Your task to perform on an android device: delete the emails in spam in the gmail app Image 0: 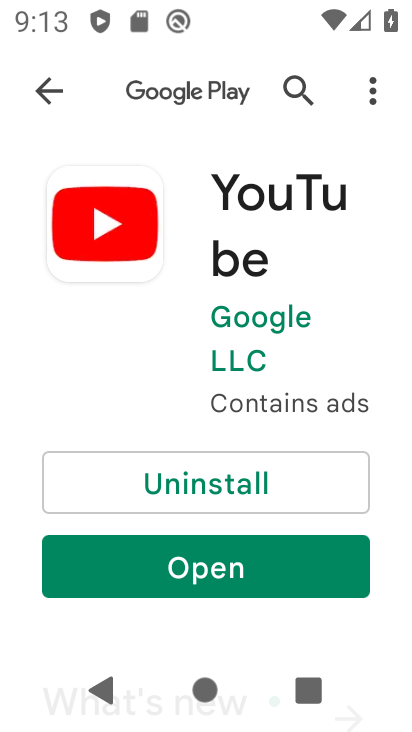
Step 0: press back button
Your task to perform on an android device: delete the emails in spam in the gmail app Image 1: 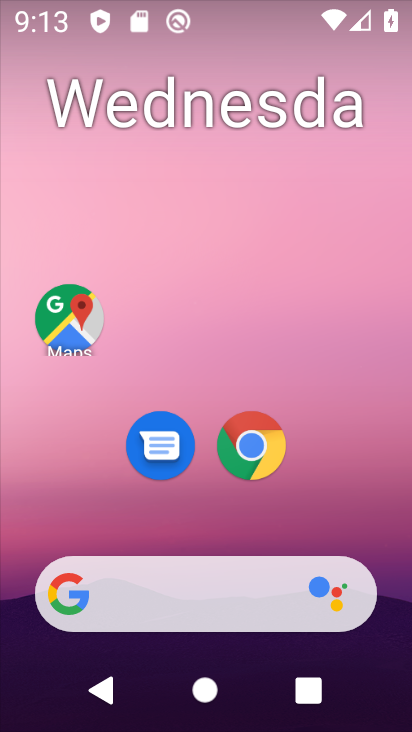
Step 1: drag from (159, 541) to (257, 4)
Your task to perform on an android device: delete the emails in spam in the gmail app Image 2: 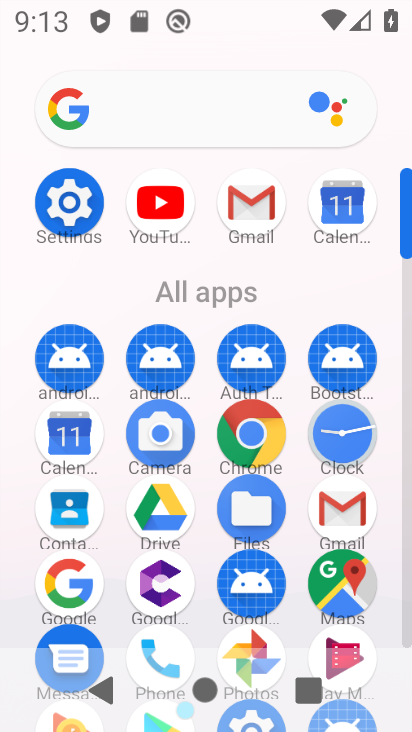
Step 2: click (251, 191)
Your task to perform on an android device: delete the emails in spam in the gmail app Image 3: 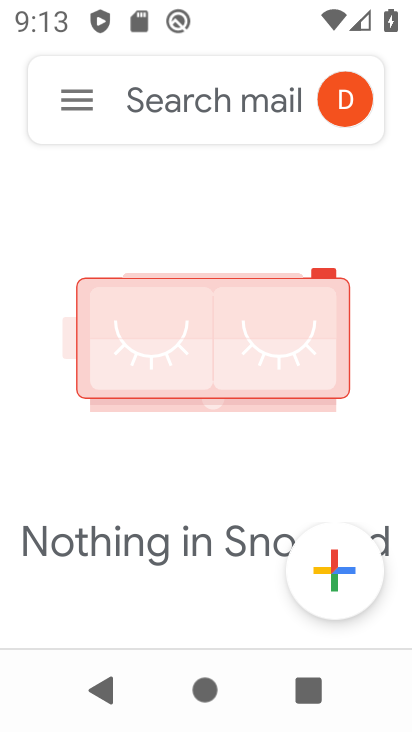
Step 3: click (78, 88)
Your task to perform on an android device: delete the emails in spam in the gmail app Image 4: 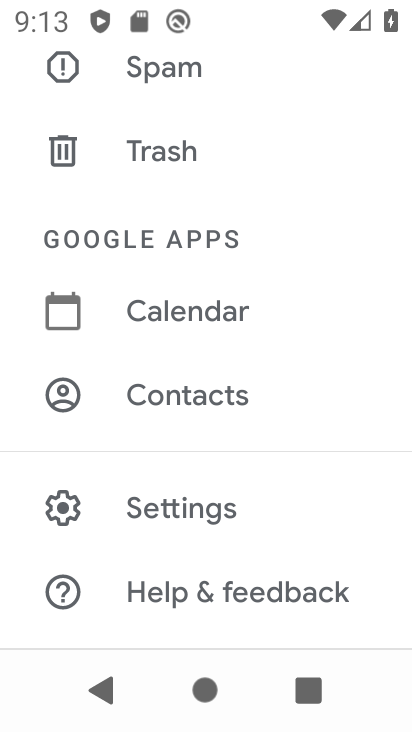
Step 4: click (177, 77)
Your task to perform on an android device: delete the emails in spam in the gmail app Image 5: 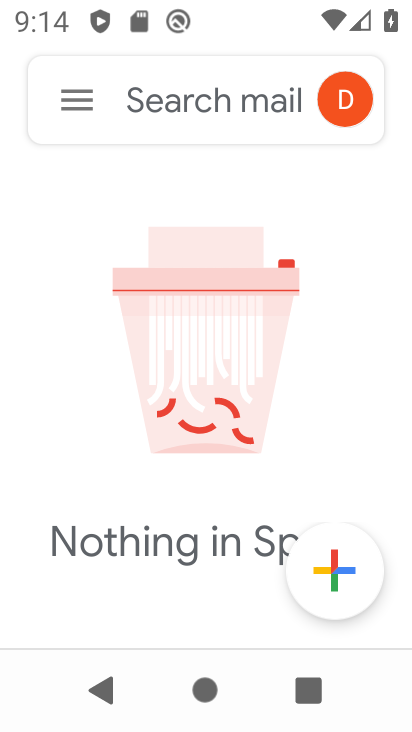
Step 5: task complete